Your task to perform on an android device: star an email in the gmail app Image 0: 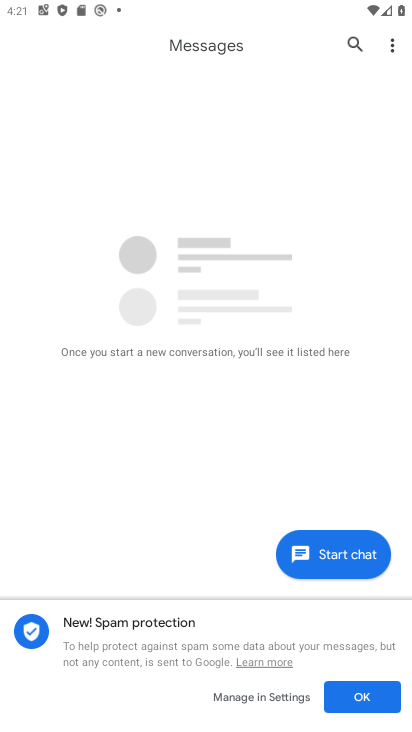
Step 0: press back button
Your task to perform on an android device: star an email in the gmail app Image 1: 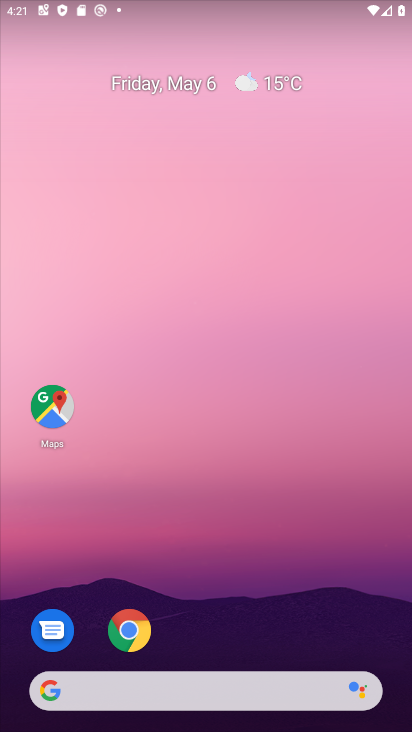
Step 1: drag from (210, 527) to (289, 21)
Your task to perform on an android device: star an email in the gmail app Image 2: 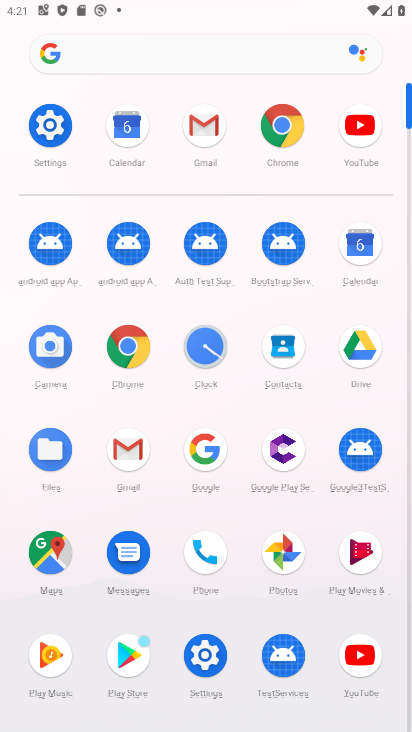
Step 2: click (201, 129)
Your task to perform on an android device: star an email in the gmail app Image 3: 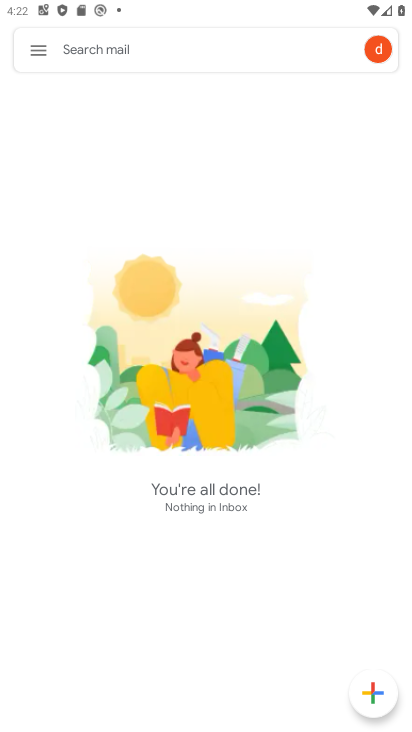
Step 3: click (41, 53)
Your task to perform on an android device: star an email in the gmail app Image 4: 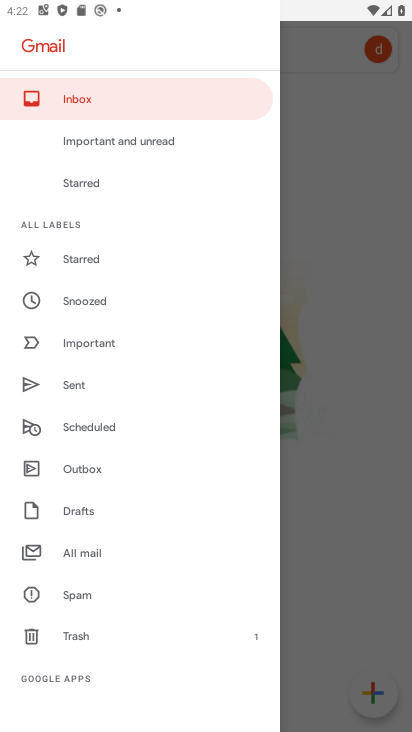
Step 4: click (112, 562)
Your task to perform on an android device: star an email in the gmail app Image 5: 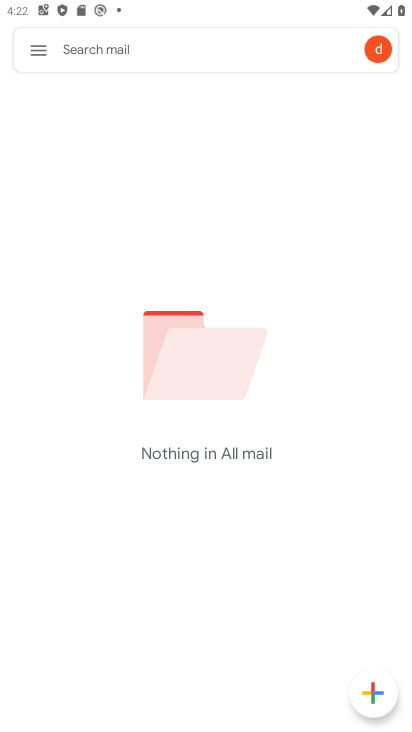
Step 5: click (34, 48)
Your task to perform on an android device: star an email in the gmail app Image 6: 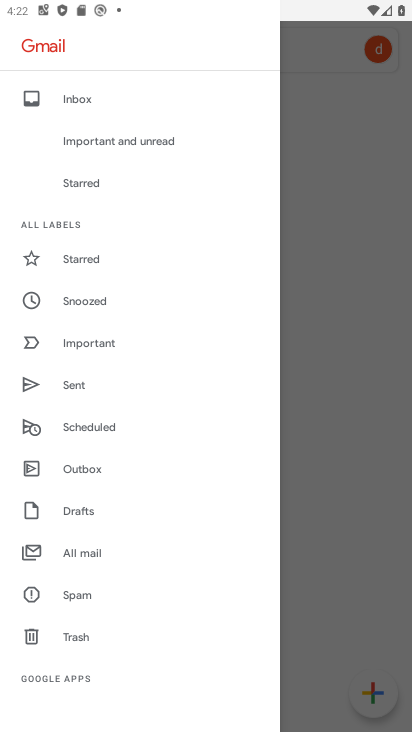
Step 6: click (88, 555)
Your task to perform on an android device: star an email in the gmail app Image 7: 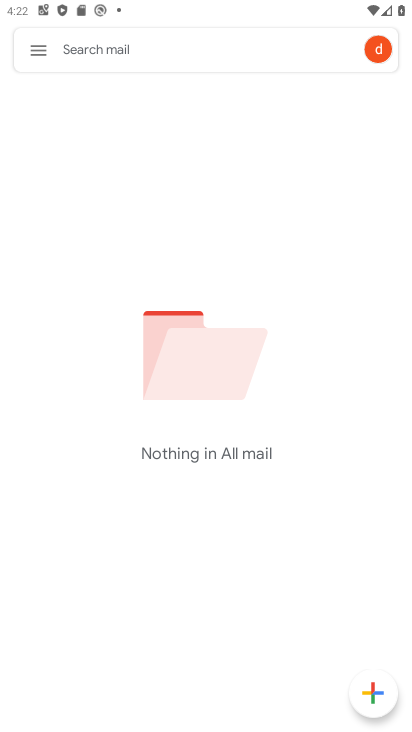
Step 7: task complete